Your task to perform on an android device: toggle airplane mode Image 0: 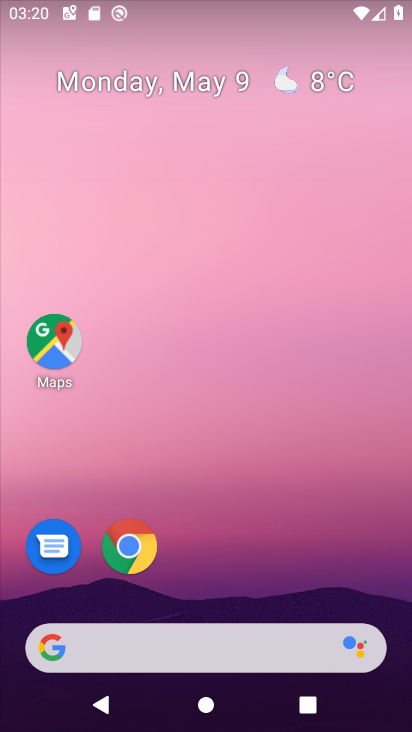
Step 0: drag from (262, 540) to (228, 0)
Your task to perform on an android device: toggle airplane mode Image 1: 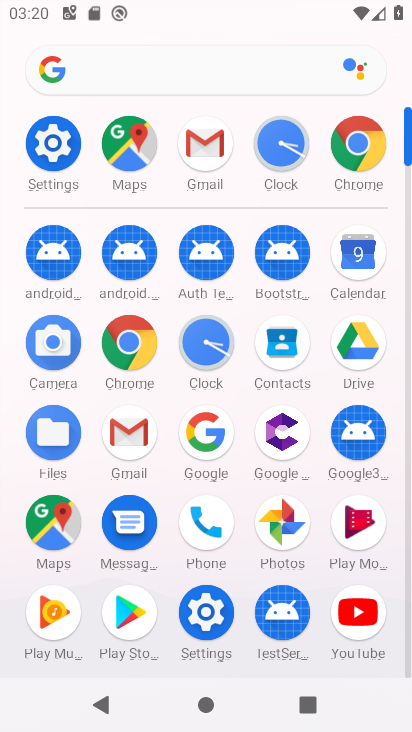
Step 1: click (56, 143)
Your task to perform on an android device: toggle airplane mode Image 2: 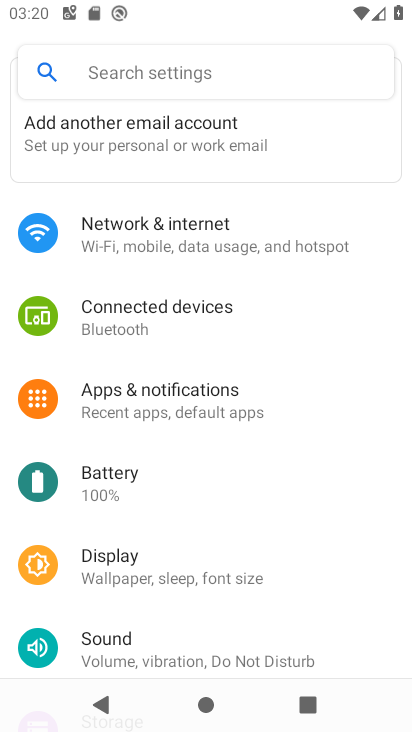
Step 2: click (128, 219)
Your task to perform on an android device: toggle airplane mode Image 3: 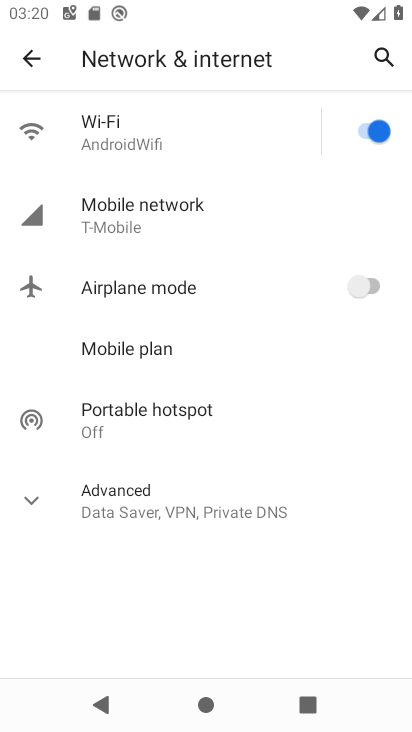
Step 3: click (363, 282)
Your task to perform on an android device: toggle airplane mode Image 4: 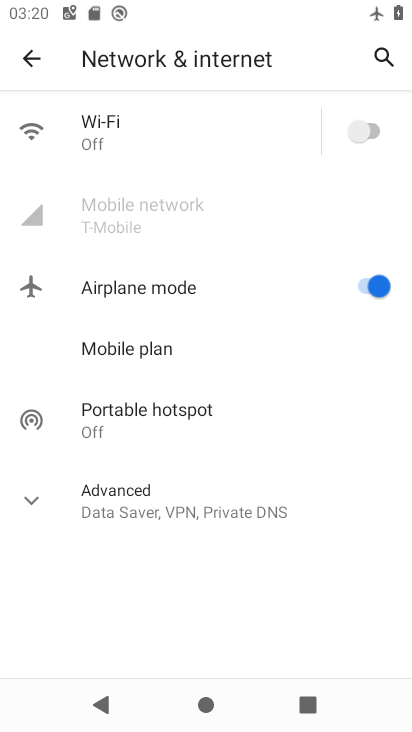
Step 4: task complete